Your task to perform on an android device: turn off picture-in-picture Image 0: 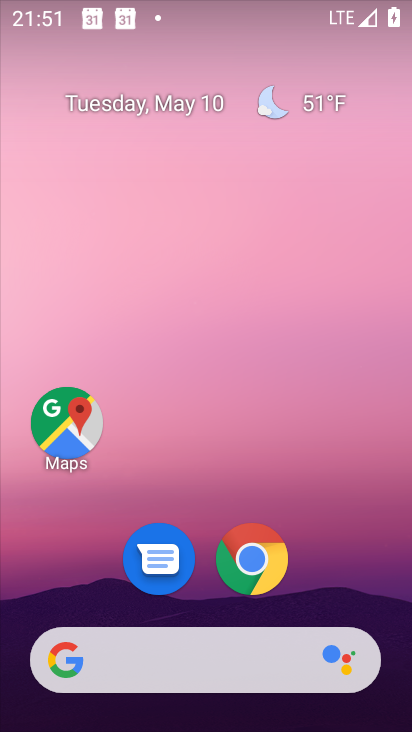
Step 0: drag from (327, 551) to (260, 117)
Your task to perform on an android device: turn off picture-in-picture Image 1: 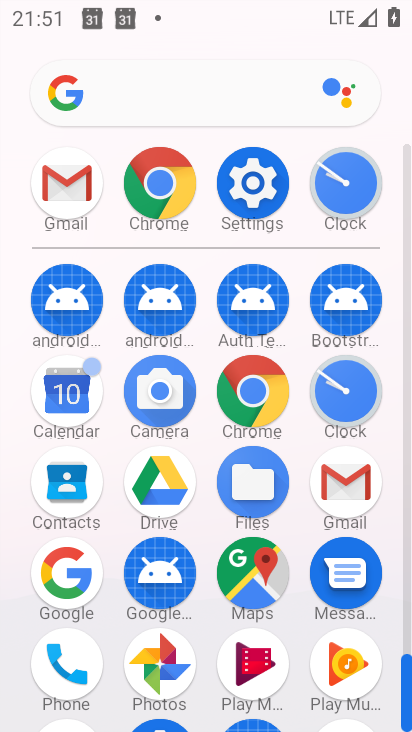
Step 1: click (160, 194)
Your task to perform on an android device: turn off picture-in-picture Image 2: 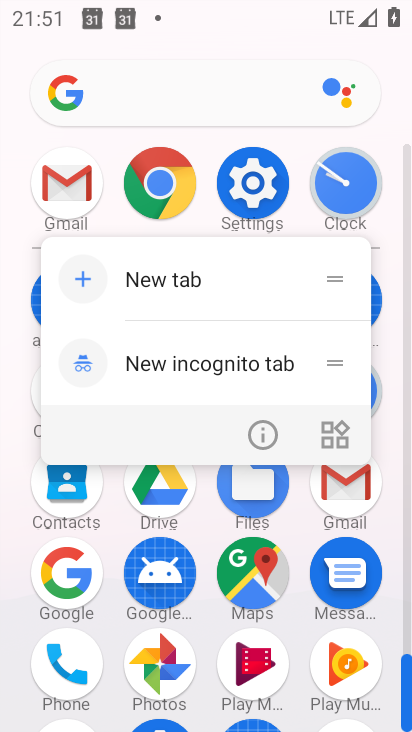
Step 2: click (265, 430)
Your task to perform on an android device: turn off picture-in-picture Image 3: 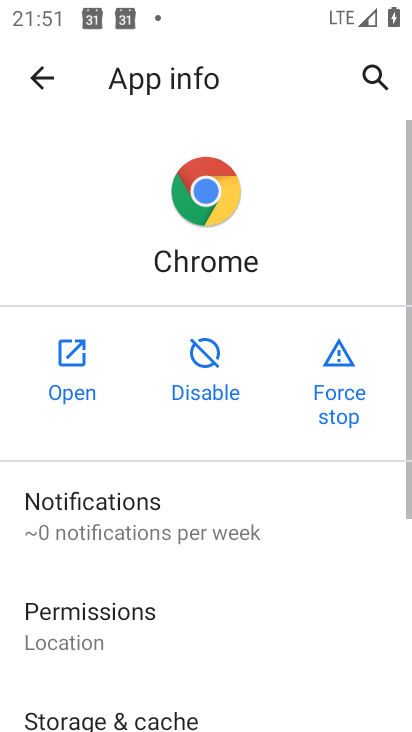
Step 3: drag from (202, 578) to (233, 461)
Your task to perform on an android device: turn off picture-in-picture Image 4: 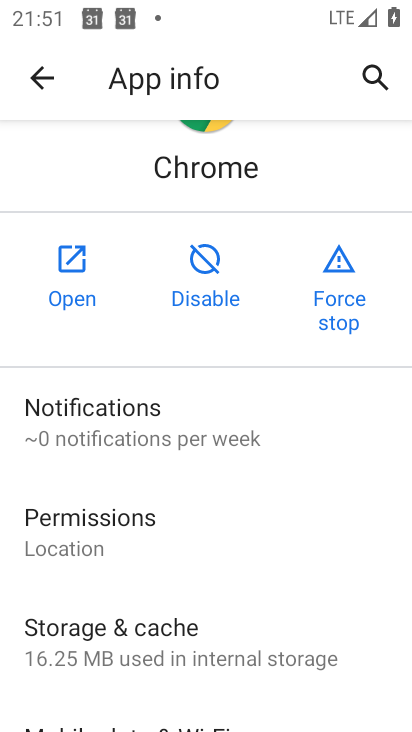
Step 4: drag from (210, 616) to (259, 499)
Your task to perform on an android device: turn off picture-in-picture Image 5: 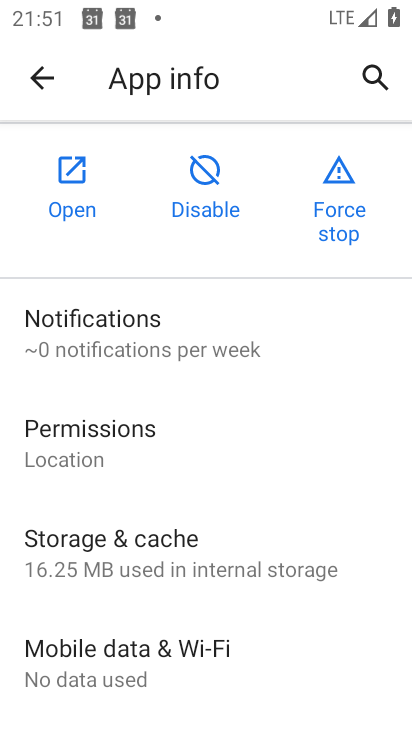
Step 5: drag from (159, 611) to (258, 451)
Your task to perform on an android device: turn off picture-in-picture Image 6: 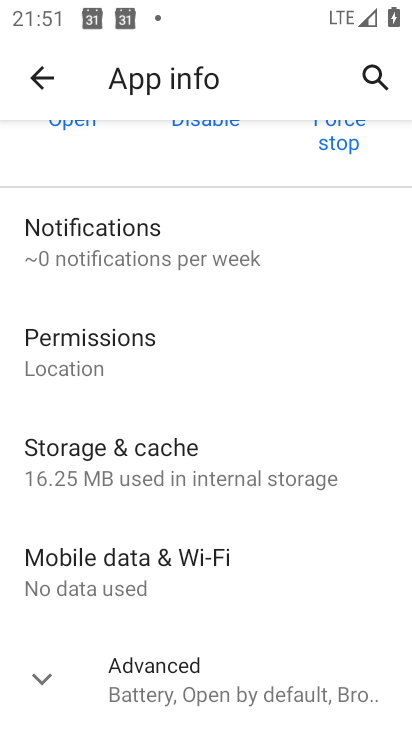
Step 6: click (176, 688)
Your task to perform on an android device: turn off picture-in-picture Image 7: 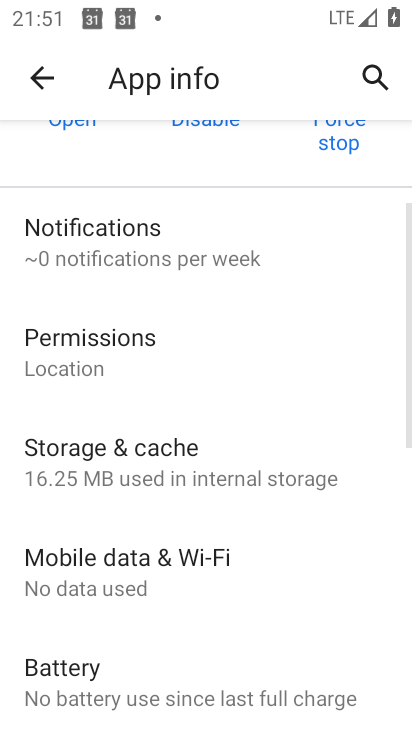
Step 7: drag from (179, 663) to (246, 538)
Your task to perform on an android device: turn off picture-in-picture Image 8: 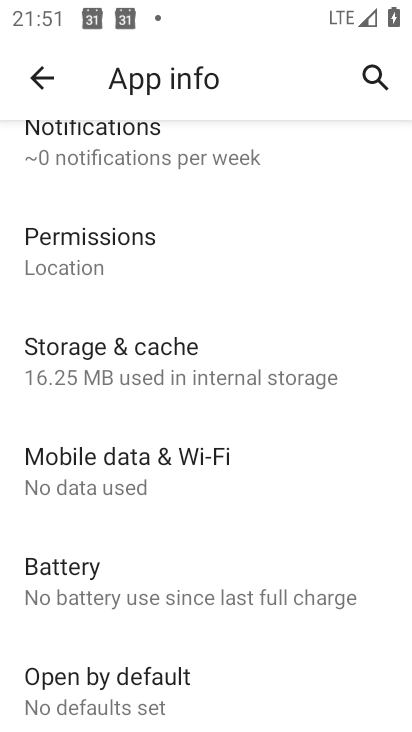
Step 8: drag from (167, 654) to (279, 509)
Your task to perform on an android device: turn off picture-in-picture Image 9: 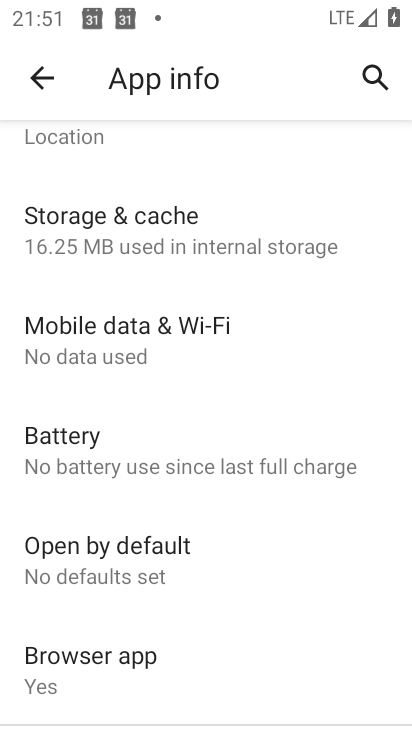
Step 9: drag from (167, 635) to (281, 468)
Your task to perform on an android device: turn off picture-in-picture Image 10: 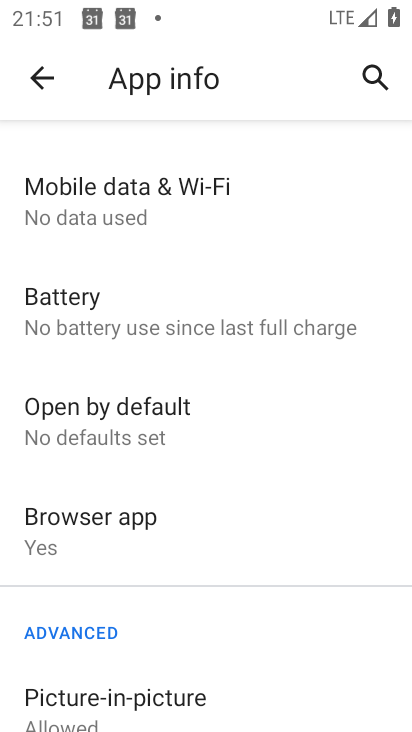
Step 10: drag from (186, 636) to (294, 495)
Your task to perform on an android device: turn off picture-in-picture Image 11: 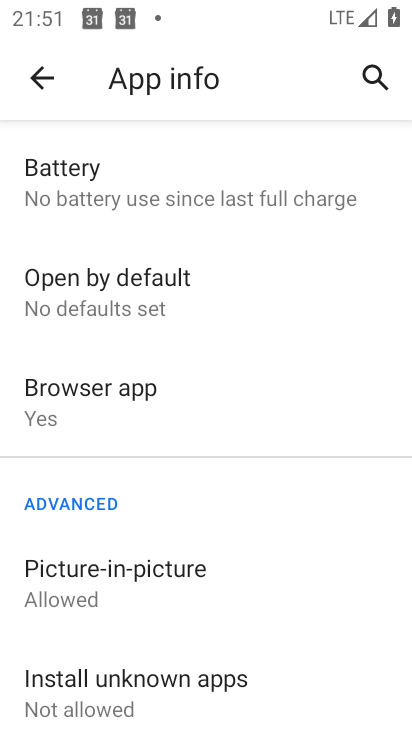
Step 11: click (184, 566)
Your task to perform on an android device: turn off picture-in-picture Image 12: 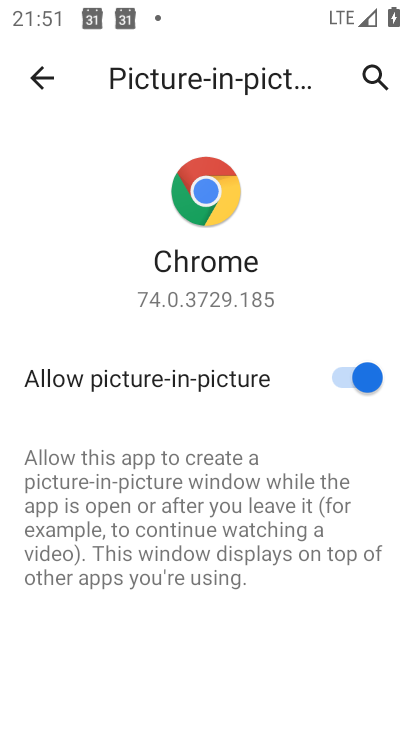
Step 12: click (364, 377)
Your task to perform on an android device: turn off picture-in-picture Image 13: 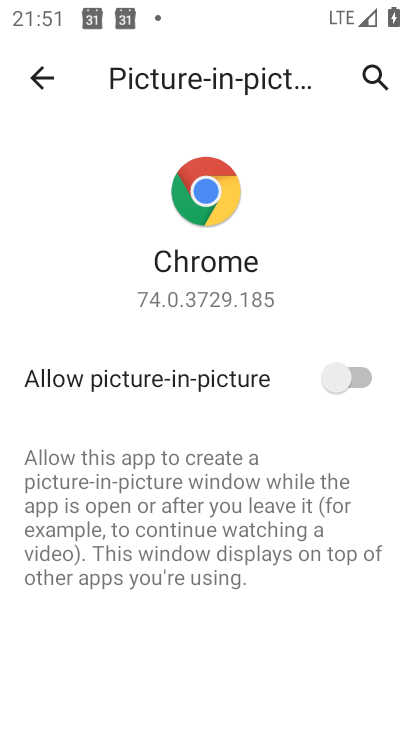
Step 13: task complete